Your task to perform on an android device: What's on my calendar today? Image 0: 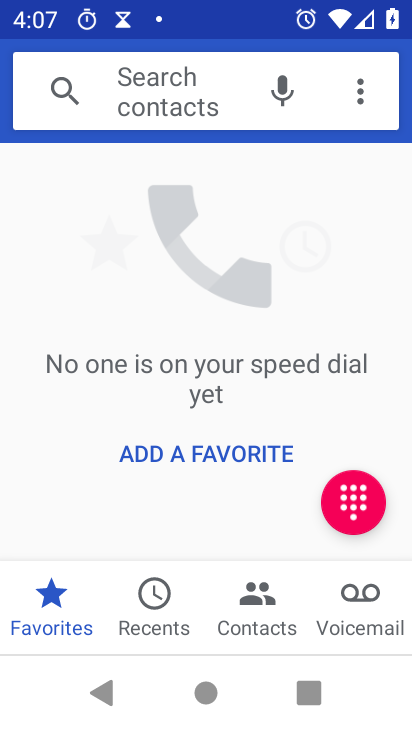
Step 0: press home button
Your task to perform on an android device: What's on my calendar today? Image 1: 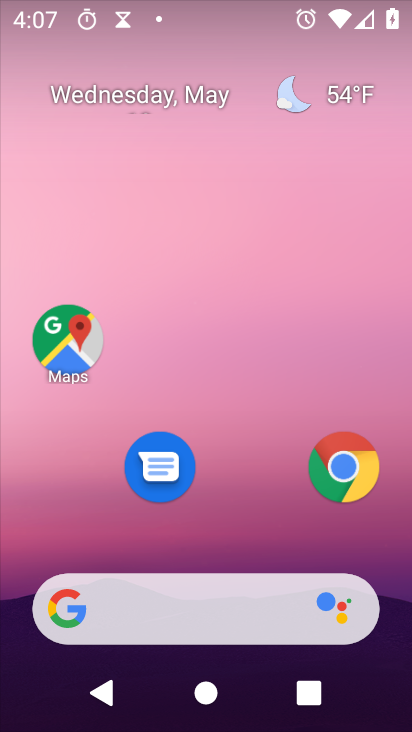
Step 1: drag from (273, 512) to (197, 152)
Your task to perform on an android device: What's on my calendar today? Image 2: 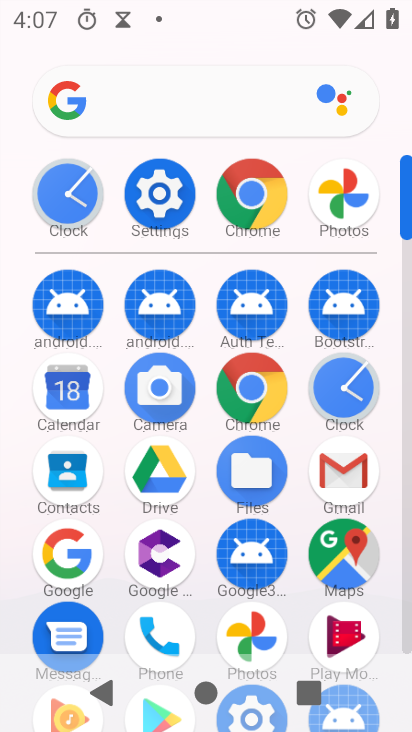
Step 2: click (74, 400)
Your task to perform on an android device: What's on my calendar today? Image 3: 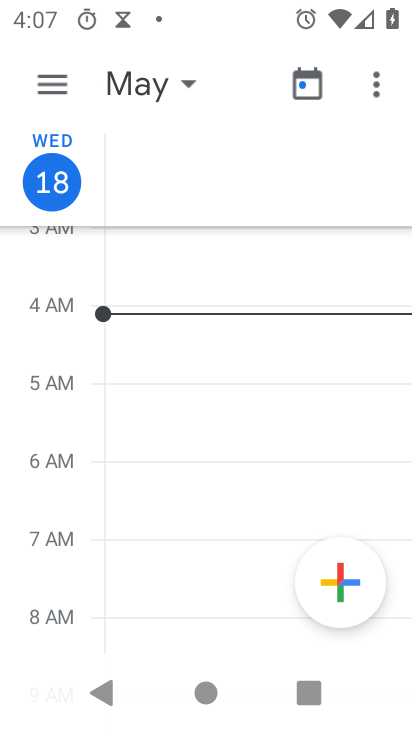
Step 3: task complete